Your task to perform on an android device: Search for "usb-a" on target.com, select the first entry, add it to the cart, then select checkout. Image 0: 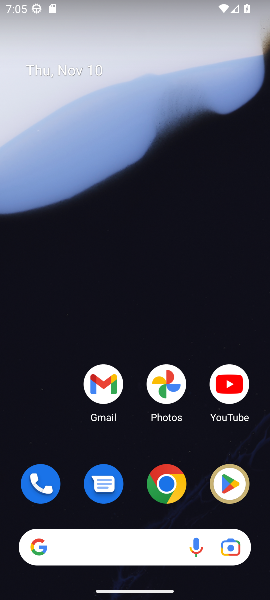
Step 0: click (170, 489)
Your task to perform on an android device: Search for "usb-a" on target.com, select the first entry, add it to the cart, then select checkout. Image 1: 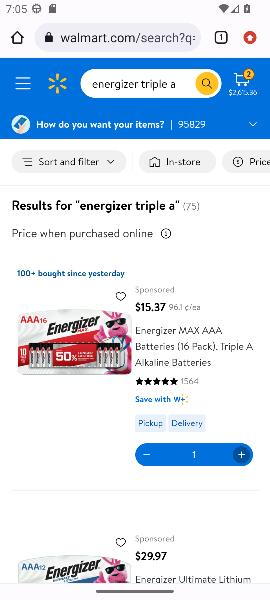
Step 1: click (109, 35)
Your task to perform on an android device: Search for "usb-a" on target.com, select the first entry, add it to the cart, then select checkout. Image 2: 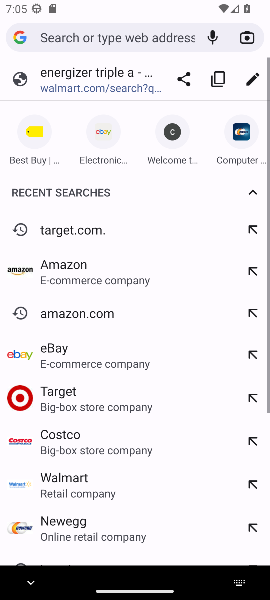
Step 2: click (74, 234)
Your task to perform on an android device: Search for "usb-a" on target.com, select the first entry, add it to the cart, then select checkout. Image 3: 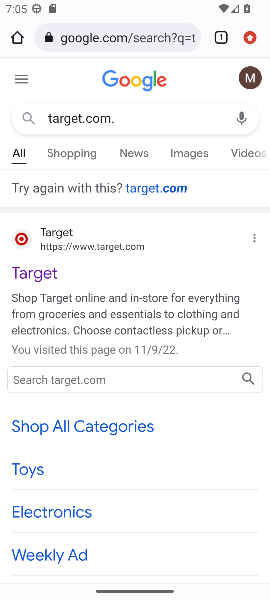
Step 3: click (42, 281)
Your task to perform on an android device: Search for "usb-a" on target.com, select the first entry, add it to the cart, then select checkout. Image 4: 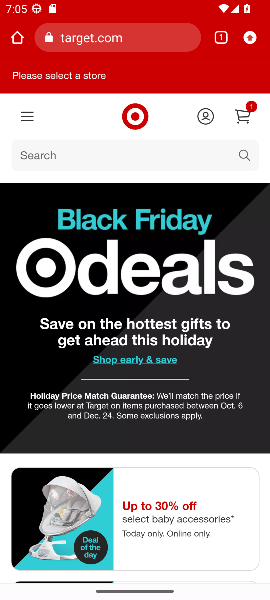
Step 4: click (240, 157)
Your task to perform on an android device: Search for "usb-a" on target.com, select the first entry, add it to the cart, then select checkout. Image 5: 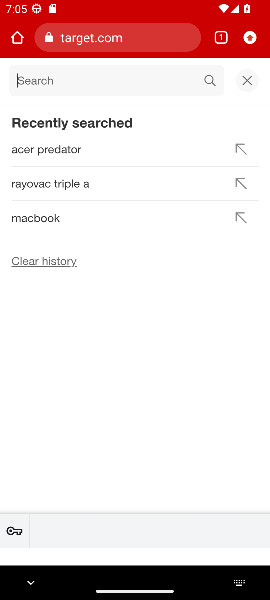
Step 5: type "usb-a"
Your task to perform on an android device: Search for "usb-a" on target.com, select the first entry, add it to the cart, then select checkout. Image 6: 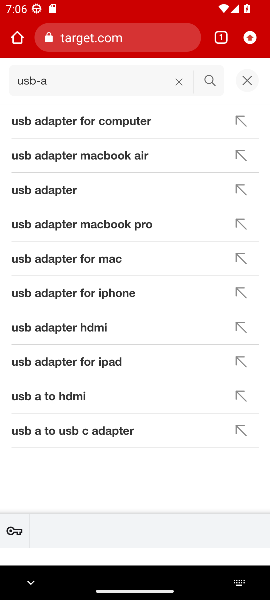
Step 6: click (210, 77)
Your task to perform on an android device: Search for "usb-a" on target.com, select the first entry, add it to the cart, then select checkout. Image 7: 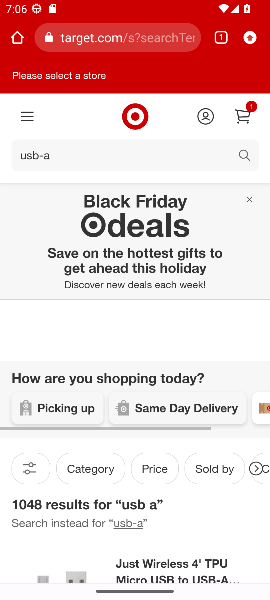
Step 7: drag from (126, 438) to (132, 244)
Your task to perform on an android device: Search for "usb-a" on target.com, select the first entry, add it to the cart, then select checkout. Image 8: 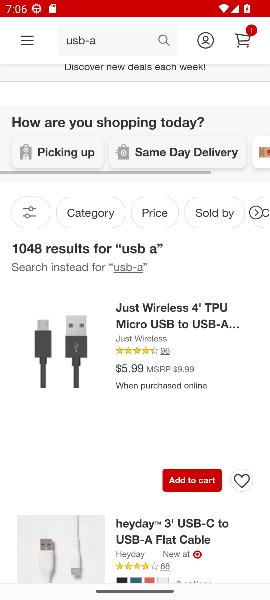
Step 8: click (192, 481)
Your task to perform on an android device: Search for "usb-a" on target.com, select the first entry, add it to the cart, then select checkout. Image 9: 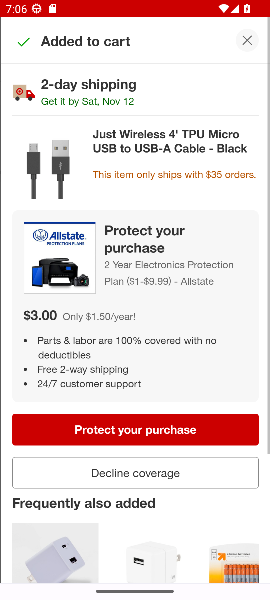
Step 9: click (248, 47)
Your task to perform on an android device: Search for "usb-a" on target.com, select the first entry, add it to the cart, then select checkout. Image 10: 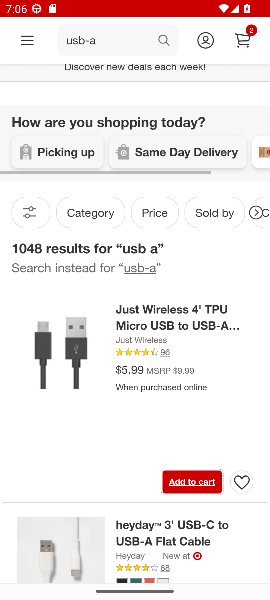
Step 10: click (249, 41)
Your task to perform on an android device: Search for "usb-a" on target.com, select the first entry, add it to the cart, then select checkout. Image 11: 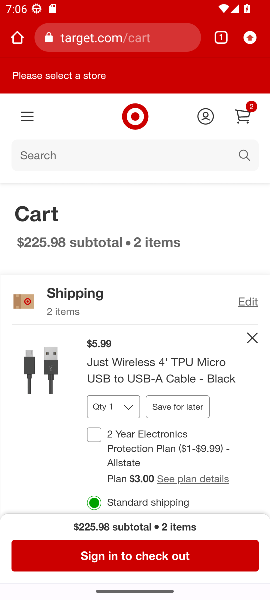
Step 11: click (135, 550)
Your task to perform on an android device: Search for "usb-a" on target.com, select the first entry, add it to the cart, then select checkout. Image 12: 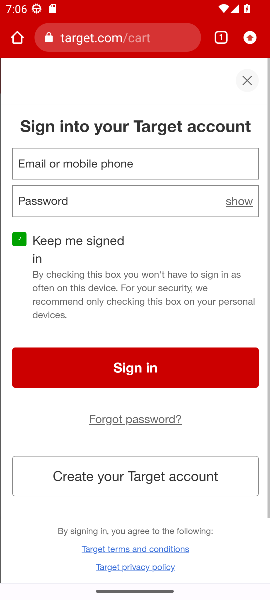
Step 12: task complete